Your task to perform on an android device: Go to Amazon Image 0: 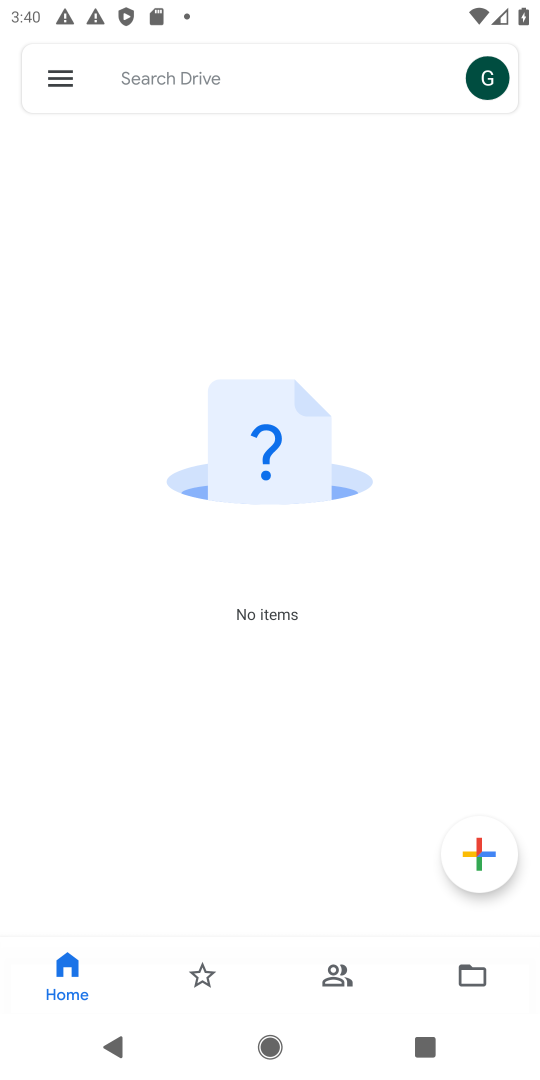
Step 0: press home button
Your task to perform on an android device: Go to Amazon Image 1: 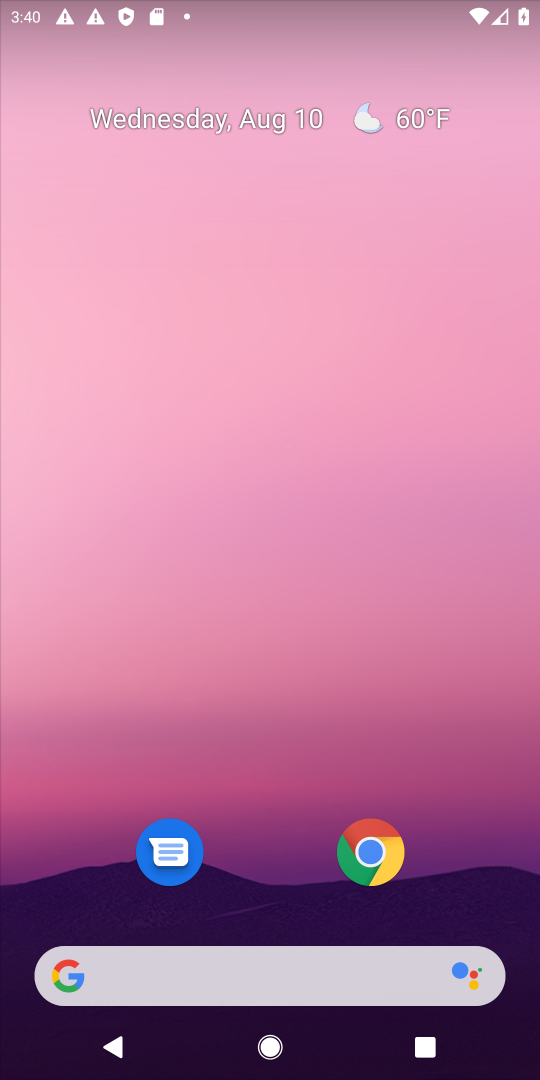
Step 1: drag from (265, 864) to (334, 138)
Your task to perform on an android device: Go to Amazon Image 2: 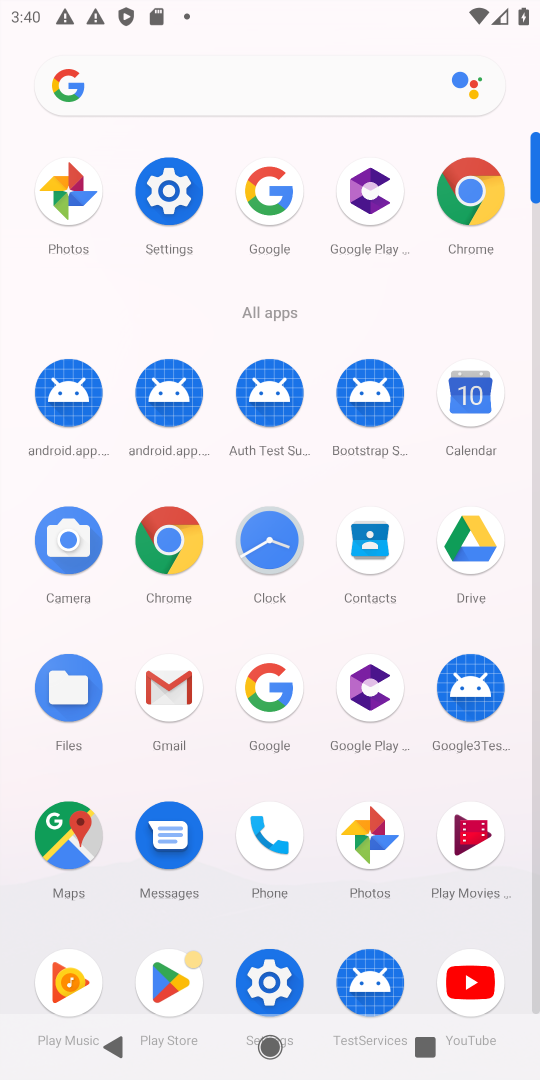
Step 2: click (173, 543)
Your task to perform on an android device: Go to Amazon Image 3: 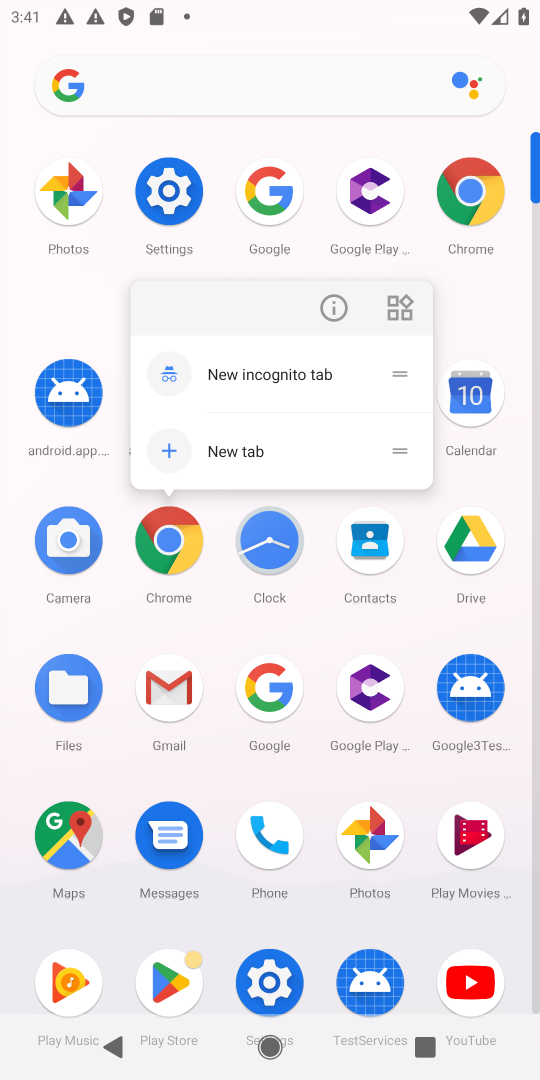
Step 3: click (157, 546)
Your task to perform on an android device: Go to Amazon Image 4: 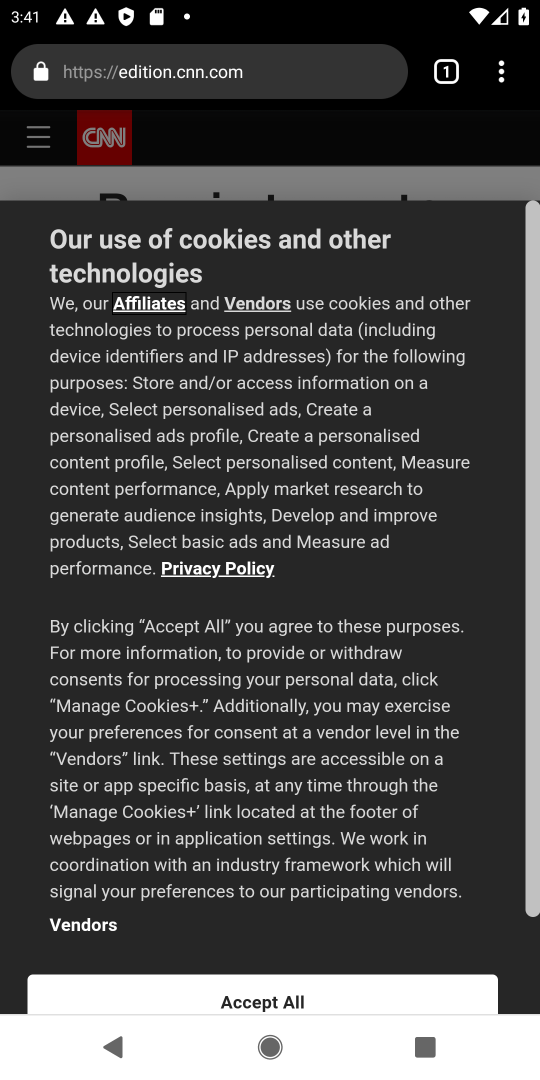
Step 4: click (305, 78)
Your task to perform on an android device: Go to Amazon Image 5: 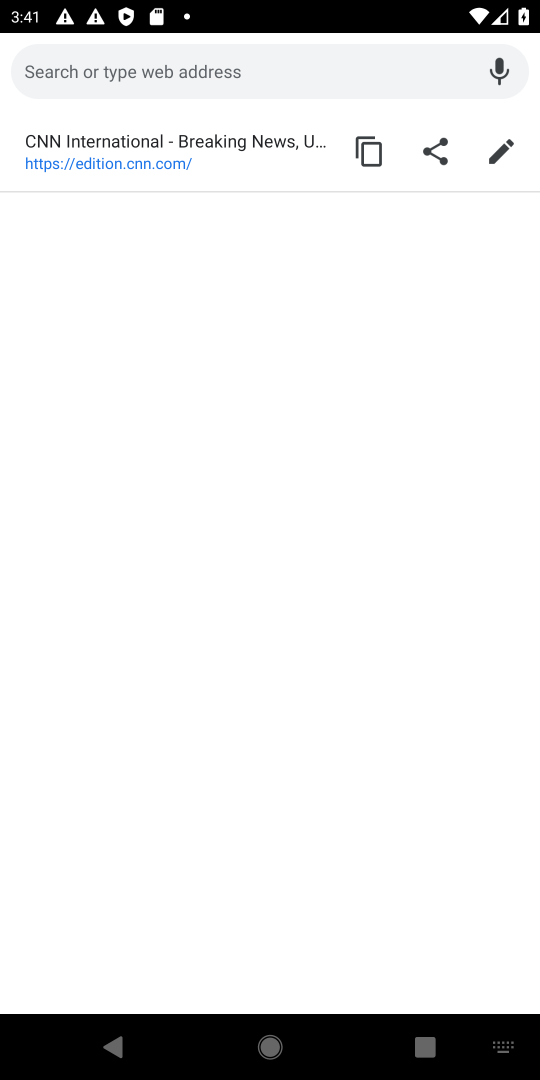
Step 5: type "amazon"
Your task to perform on an android device: Go to Amazon Image 6: 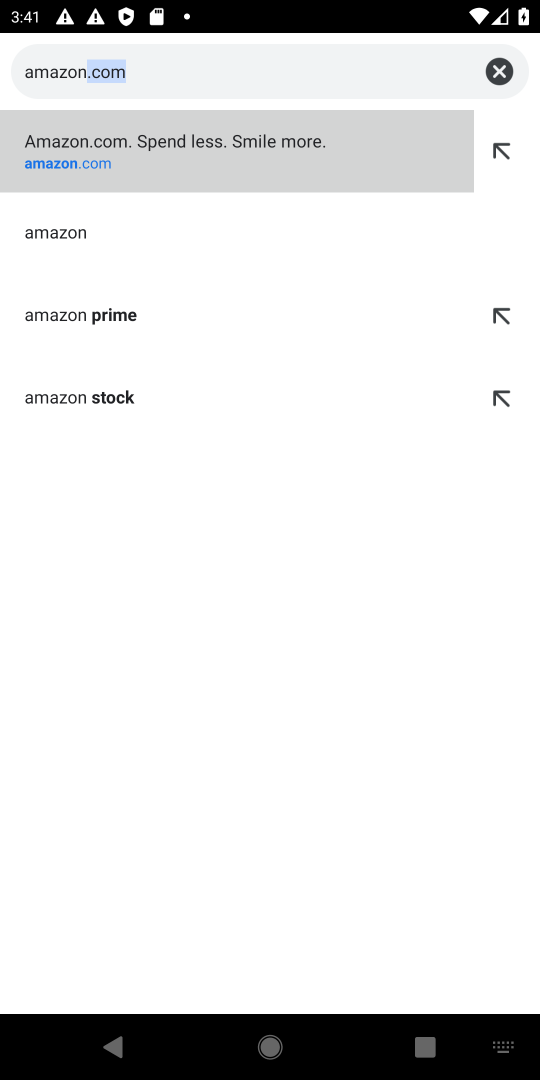
Step 6: click (93, 180)
Your task to perform on an android device: Go to Amazon Image 7: 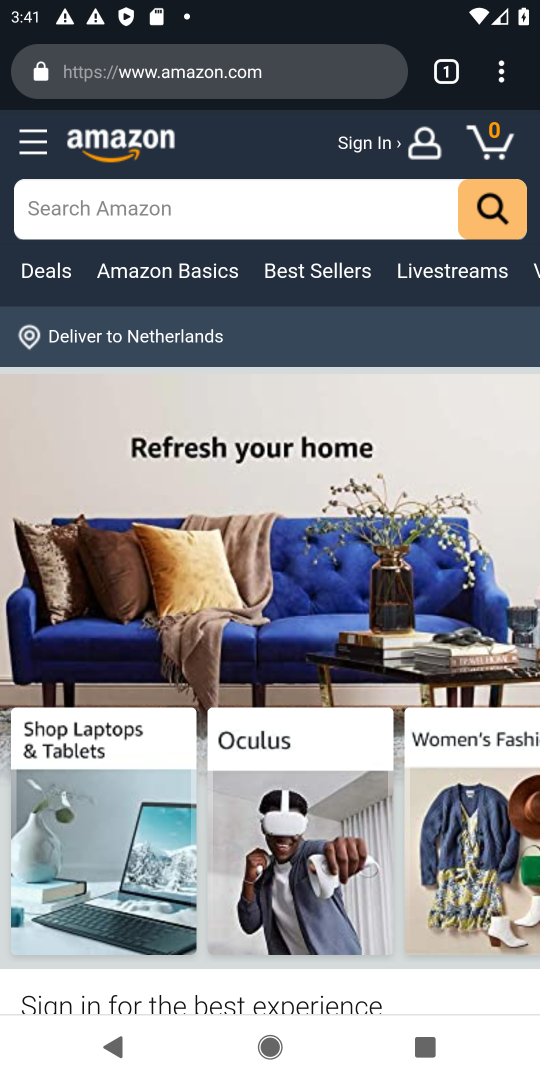
Step 7: task complete